Your task to perform on an android device: read, delete, or share a saved page in the chrome app Image 0: 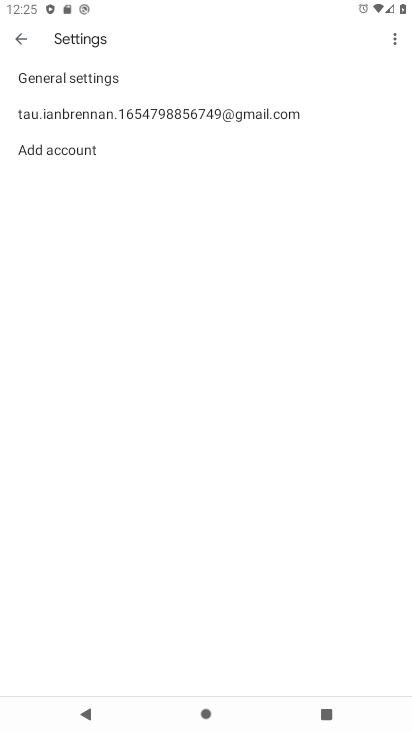
Step 0: press back button
Your task to perform on an android device: read, delete, or share a saved page in the chrome app Image 1: 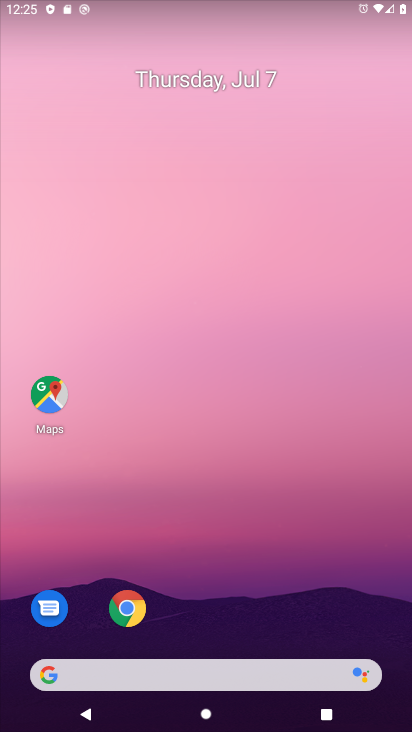
Step 1: click (128, 608)
Your task to perform on an android device: read, delete, or share a saved page in the chrome app Image 2: 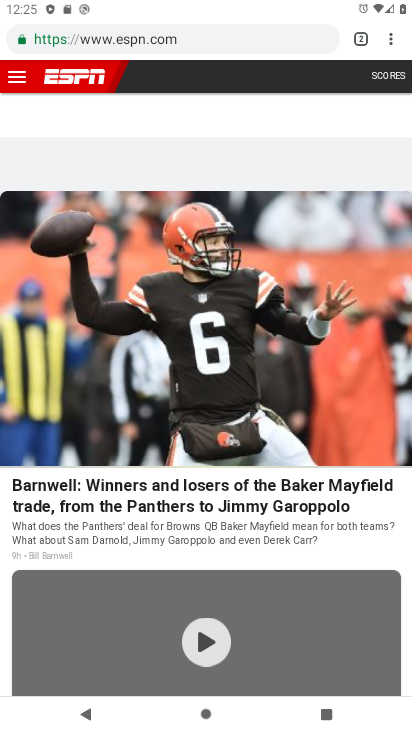
Step 2: drag from (393, 38) to (271, 259)
Your task to perform on an android device: read, delete, or share a saved page in the chrome app Image 3: 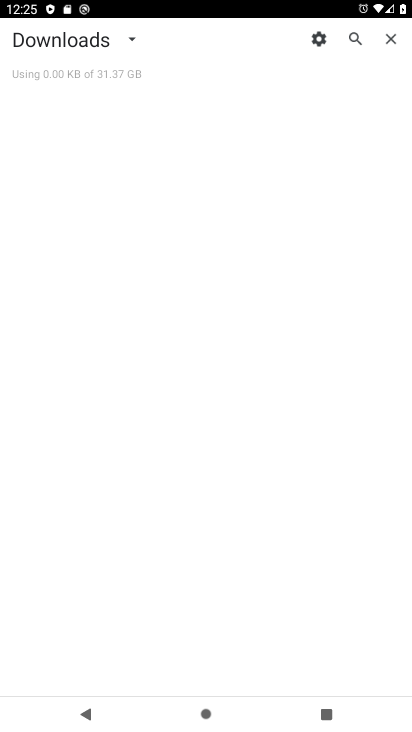
Step 3: click (131, 38)
Your task to perform on an android device: read, delete, or share a saved page in the chrome app Image 4: 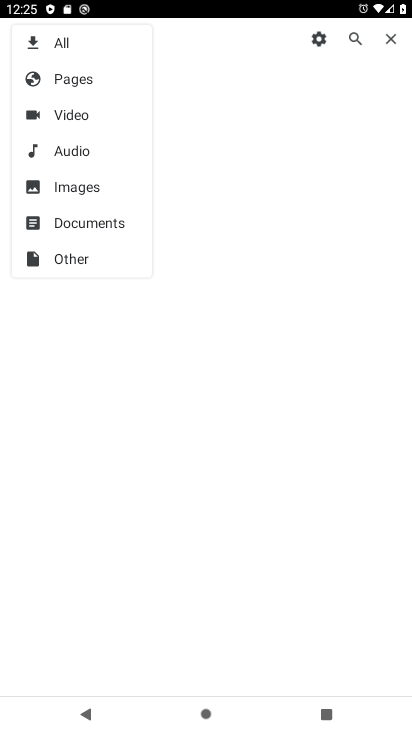
Step 4: click (75, 84)
Your task to perform on an android device: read, delete, or share a saved page in the chrome app Image 5: 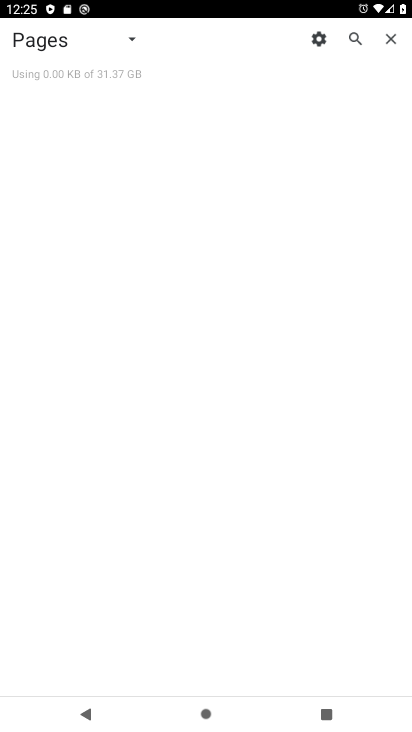
Step 5: task complete